Your task to perform on an android device: toggle airplane mode Image 0: 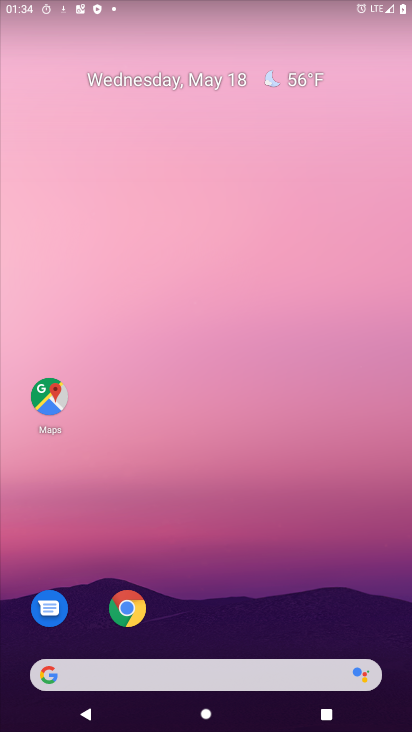
Step 0: drag from (287, 678) to (238, 259)
Your task to perform on an android device: toggle airplane mode Image 1: 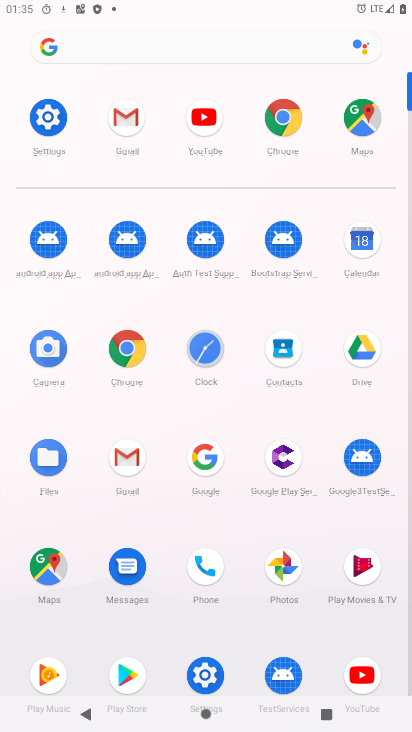
Step 1: click (218, 658)
Your task to perform on an android device: toggle airplane mode Image 2: 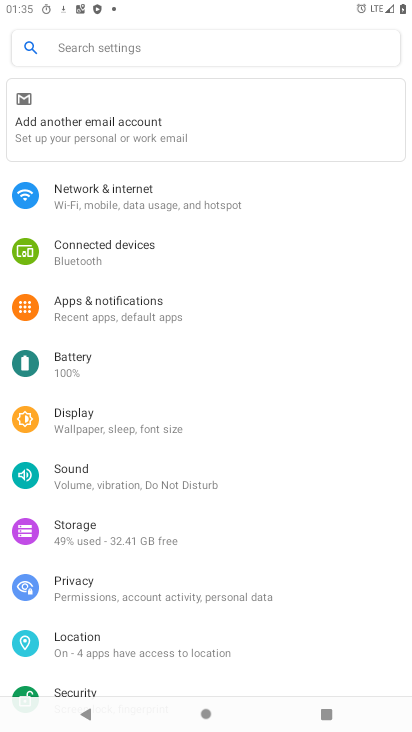
Step 2: click (131, 213)
Your task to perform on an android device: toggle airplane mode Image 3: 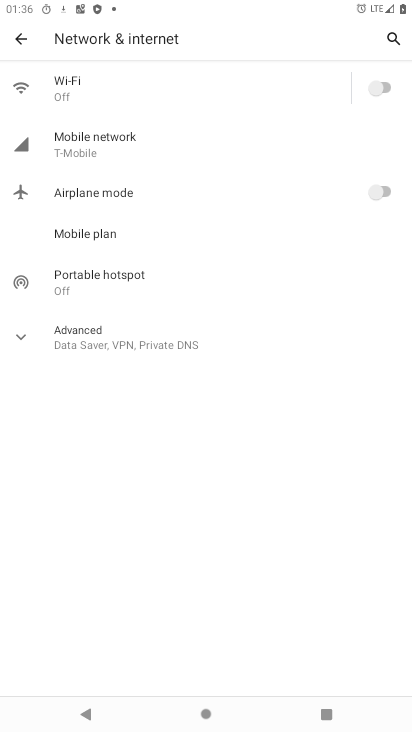
Step 3: task complete